Your task to perform on an android device: Open calendar and show me the first week of next month Image 0: 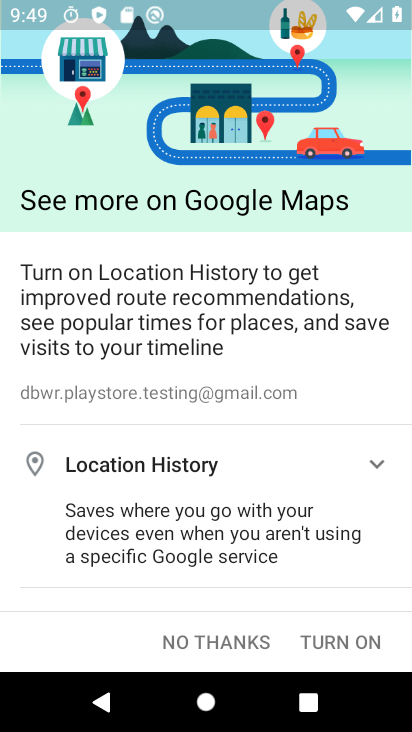
Step 0: press home button
Your task to perform on an android device: Open calendar and show me the first week of next month Image 1: 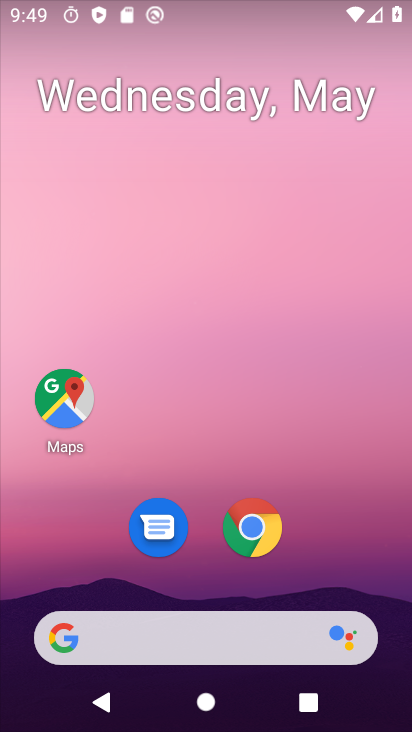
Step 1: drag from (300, 583) to (294, 122)
Your task to perform on an android device: Open calendar and show me the first week of next month Image 2: 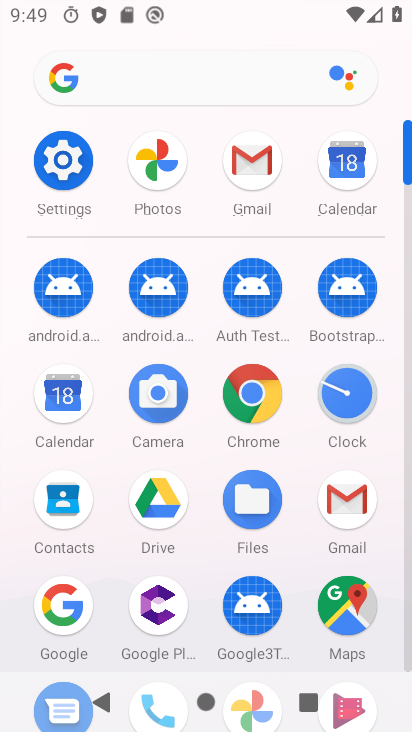
Step 2: click (356, 163)
Your task to perform on an android device: Open calendar and show me the first week of next month Image 3: 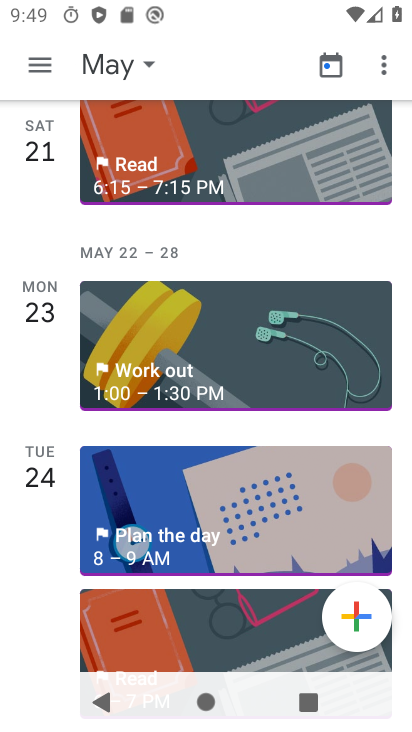
Step 3: click (134, 64)
Your task to perform on an android device: Open calendar and show me the first week of next month Image 4: 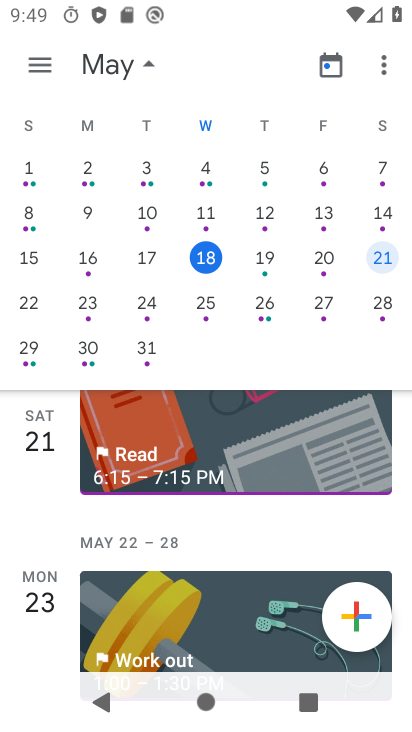
Step 4: drag from (357, 235) to (17, 214)
Your task to perform on an android device: Open calendar and show me the first week of next month Image 5: 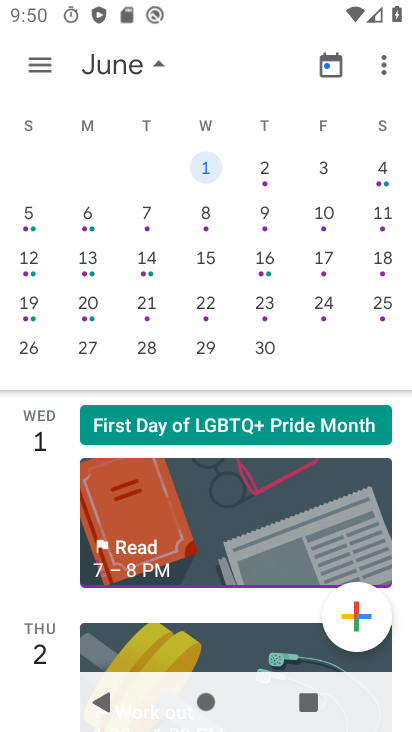
Step 5: click (321, 163)
Your task to perform on an android device: Open calendar and show me the first week of next month Image 6: 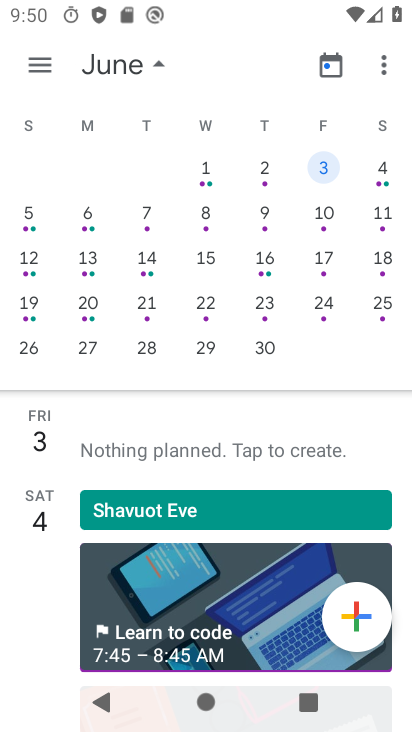
Step 6: task complete